Your task to perform on an android device: Is it going to rain tomorrow? Image 0: 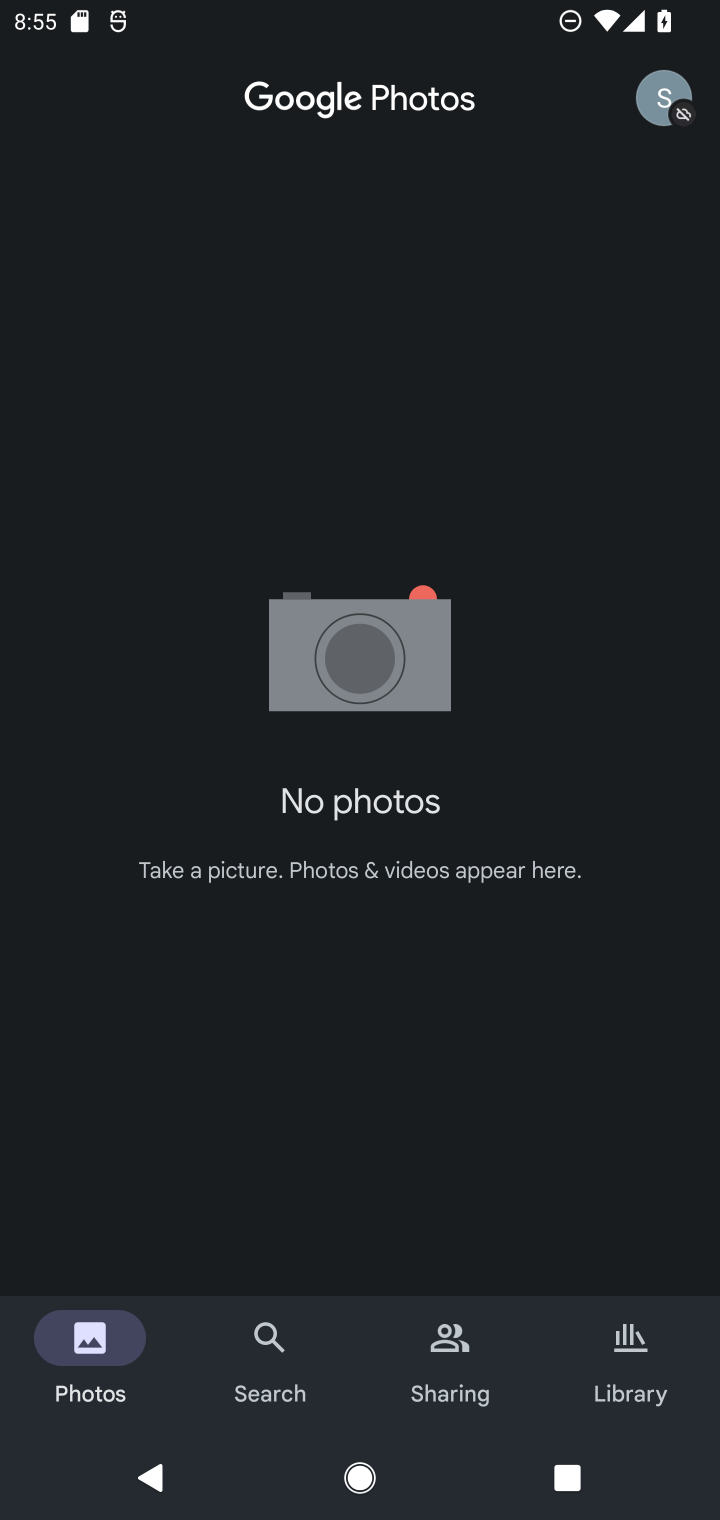
Step 0: press home button
Your task to perform on an android device: Is it going to rain tomorrow? Image 1: 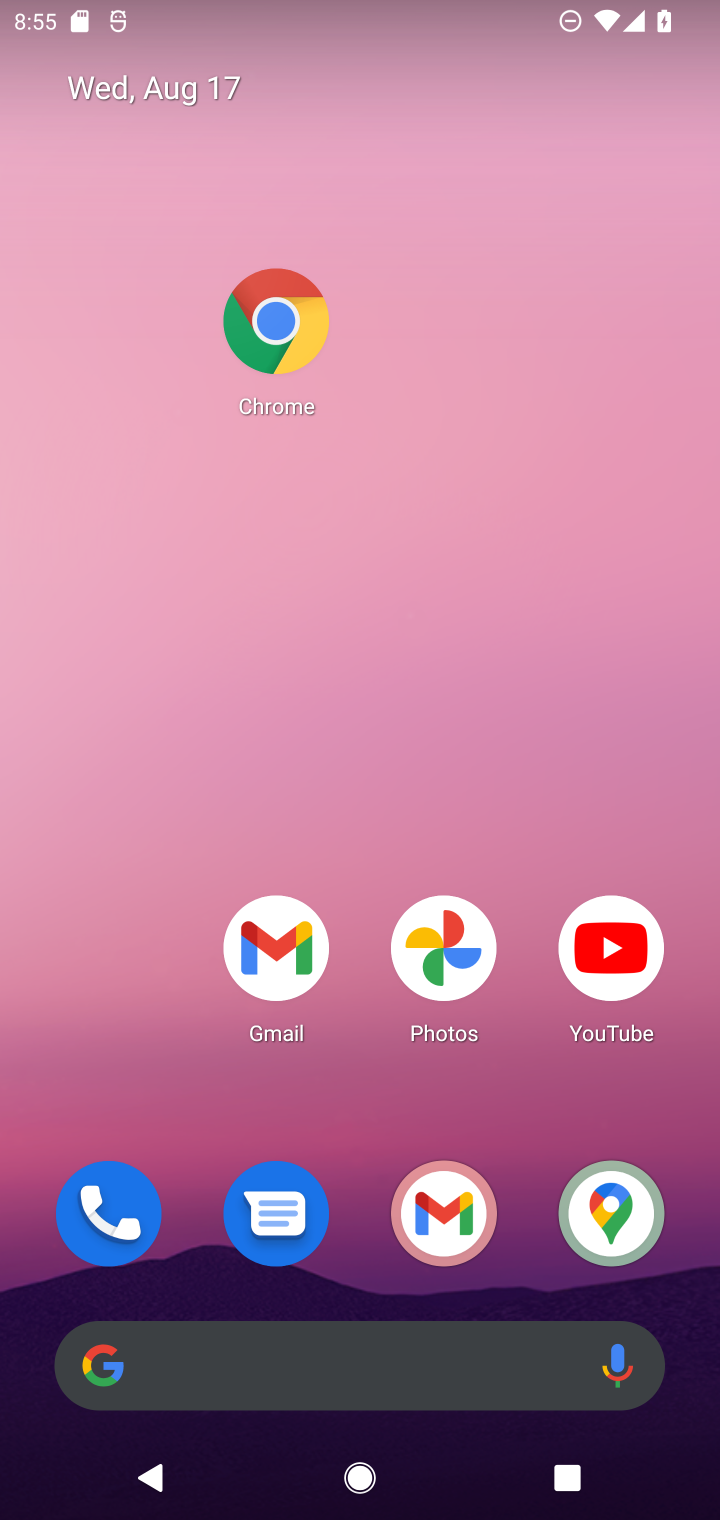
Step 1: click (309, 1339)
Your task to perform on an android device: Is it going to rain tomorrow? Image 2: 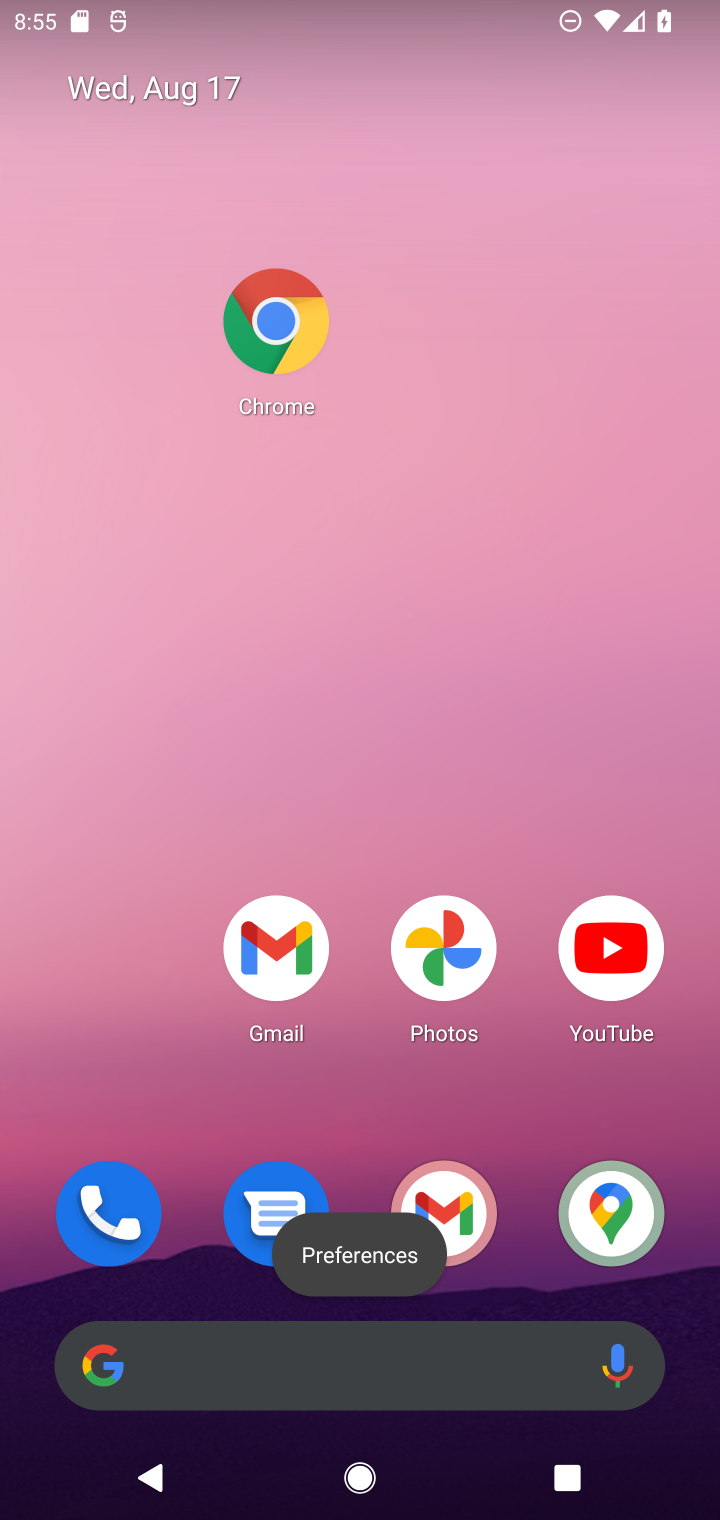
Step 2: click (309, 1339)
Your task to perform on an android device: Is it going to rain tomorrow? Image 3: 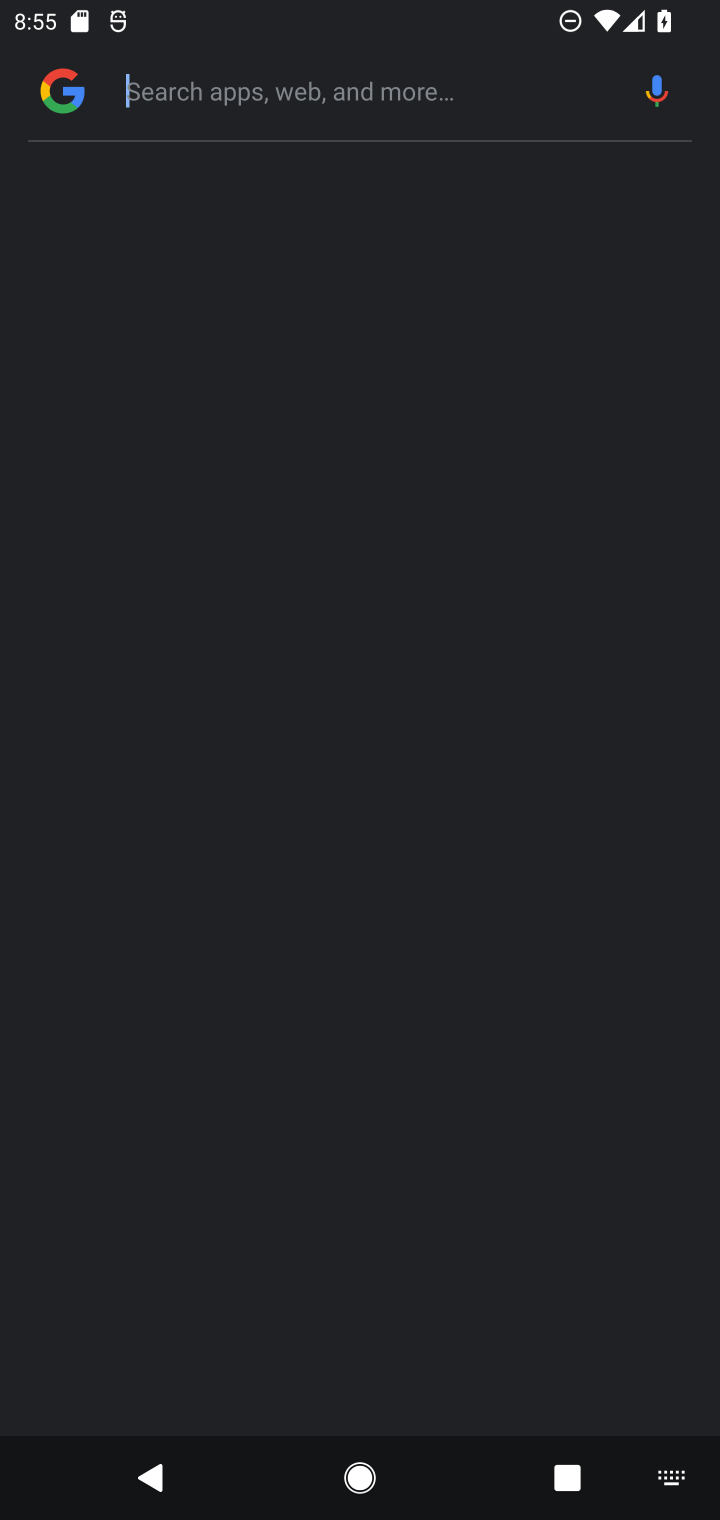
Step 3: click (325, 1370)
Your task to perform on an android device: Is it going to rain tomorrow? Image 4: 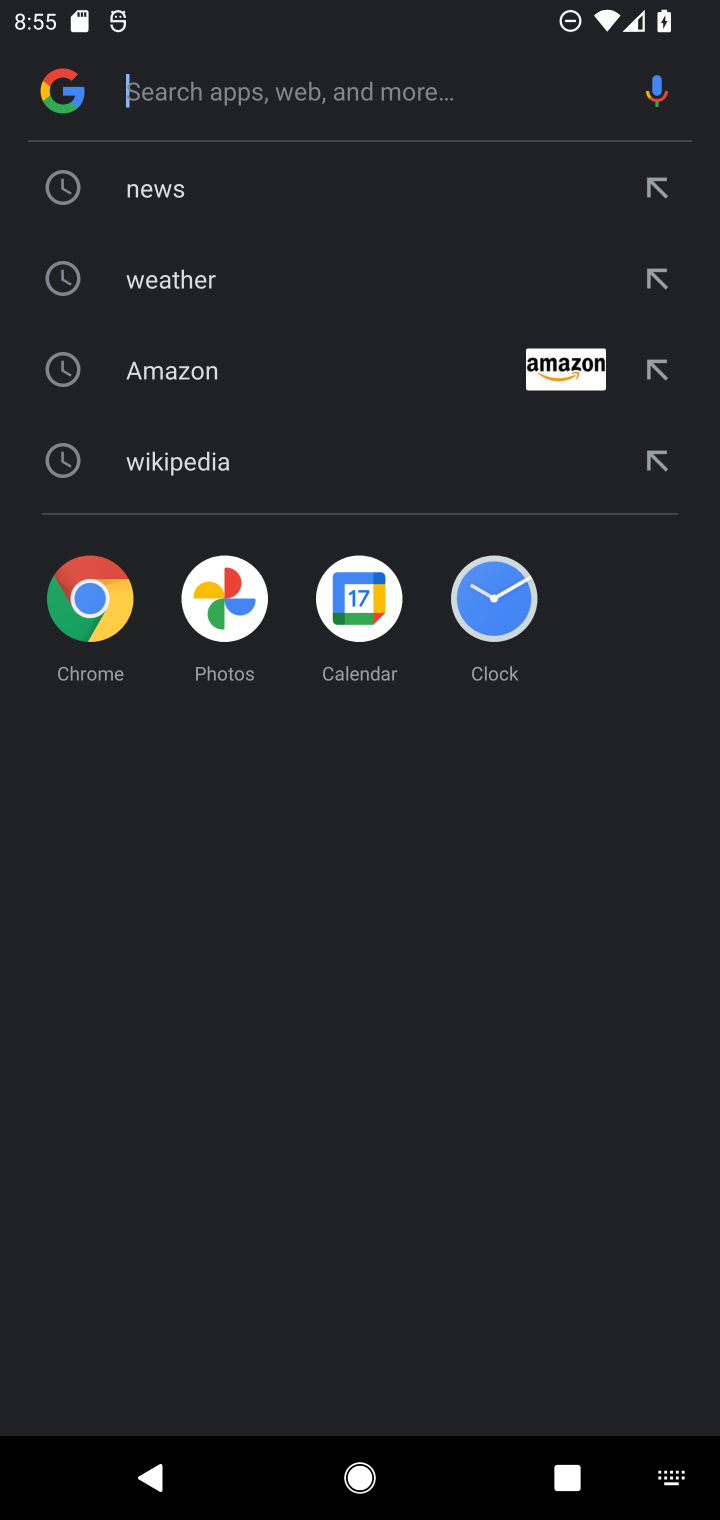
Step 4: click (208, 287)
Your task to perform on an android device: Is it going to rain tomorrow? Image 5: 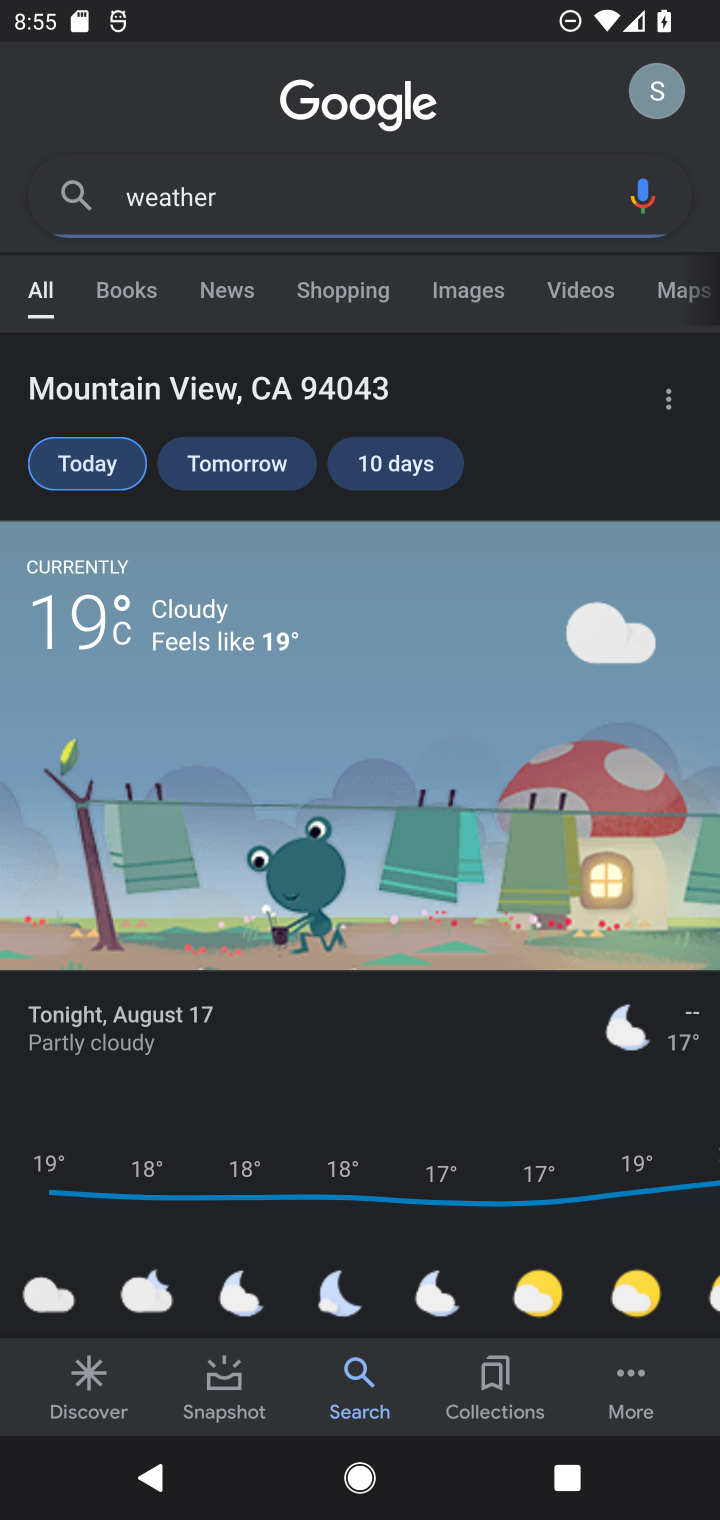
Step 5: task complete